Your task to perform on an android device: Open Google Chrome and open the bookmarks view Image 0: 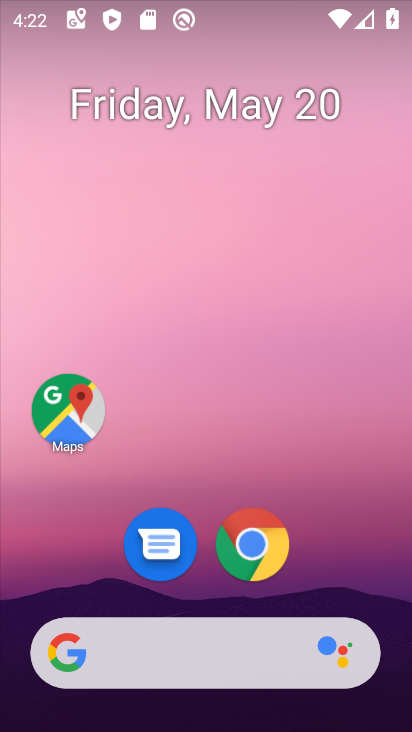
Step 0: click (253, 557)
Your task to perform on an android device: Open Google Chrome and open the bookmarks view Image 1: 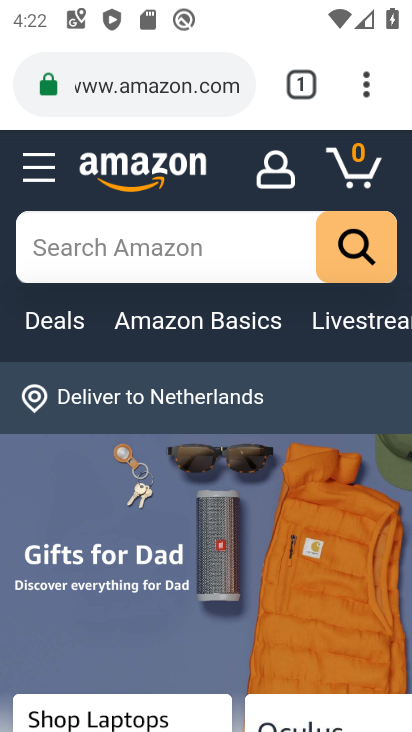
Step 1: click (366, 85)
Your task to perform on an android device: Open Google Chrome and open the bookmarks view Image 2: 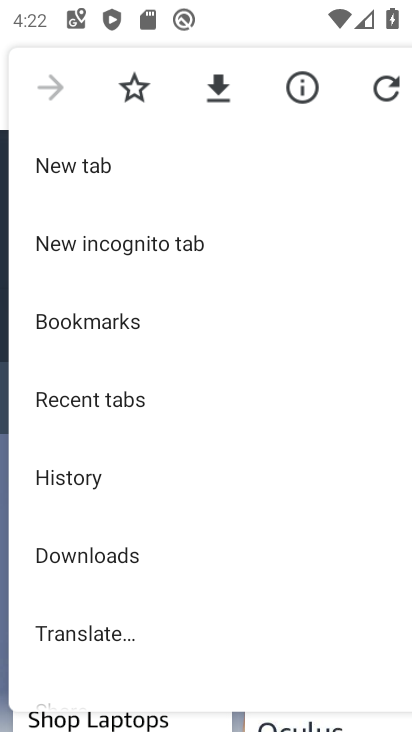
Step 2: click (78, 318)
Your task to perform on an android device: Open Google Chrome and open the bookmarks view Image 3: 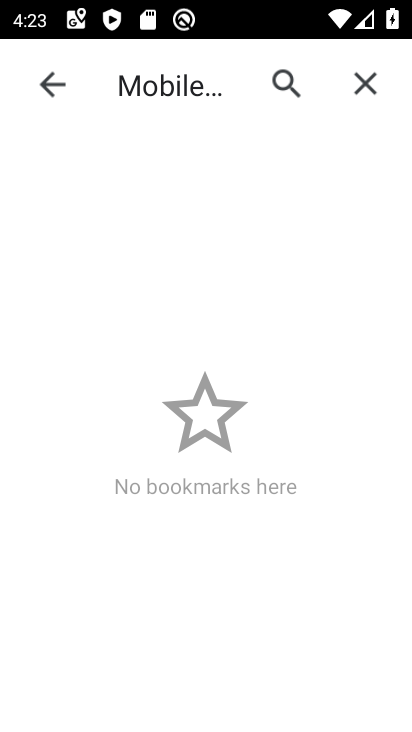
Step 3: task complete